Your task to perform on an android device: open the mobile data screen to see how much data has been used Image 0: 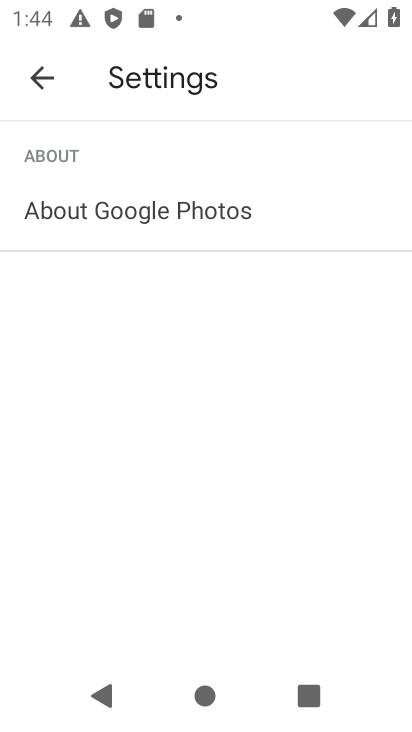
Step 0: press home button
Your task to perform on an android device: open the mobile data screen to see how much data has been used Image 1: 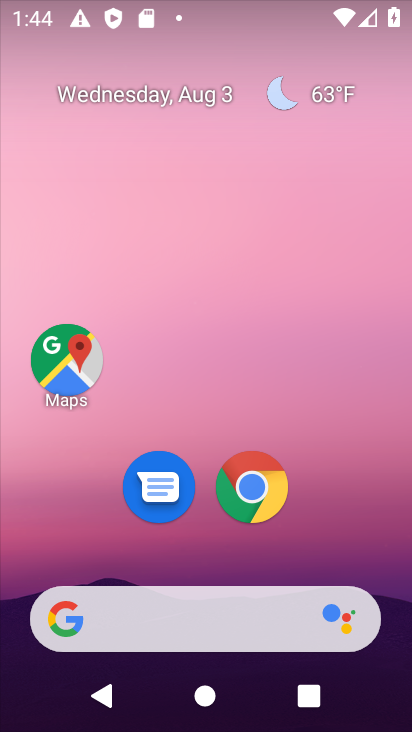
Step 1: drag from (293, 547) to (325, 31)
Your task to perform on an android device: open the mobile data screen to see how much data has been used Image 2: 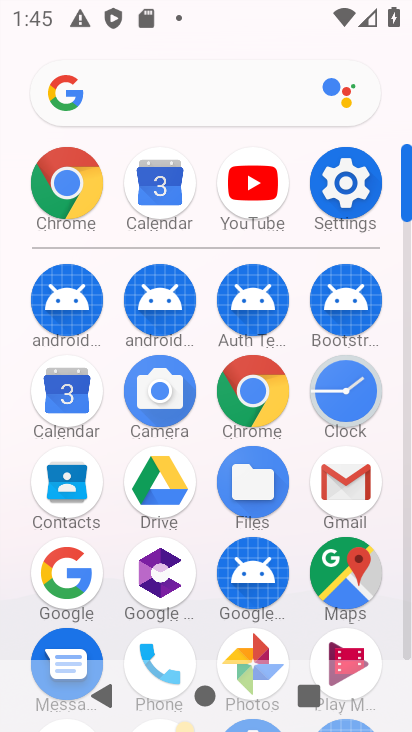
Step 2: drag from (270, 4) to (205, 612)
Your task to perform on an android device: open the mobile data screen to see how much data has been used Image 3: 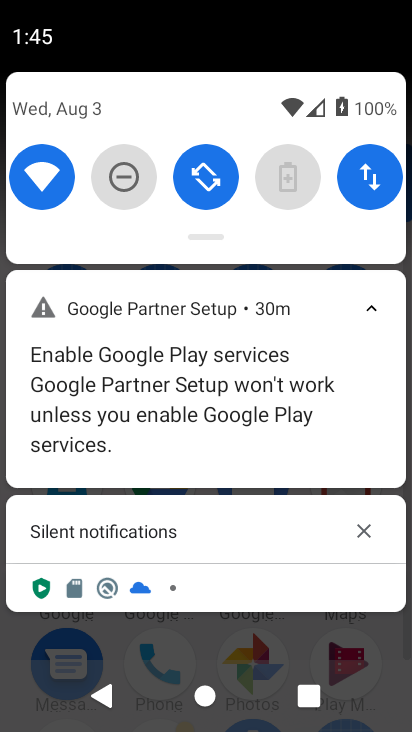
Step 3: drag from (232, 191) to (233, 587)
Your task to perform on an android device: open the mobile data screen to see how much data has been used Image 4: 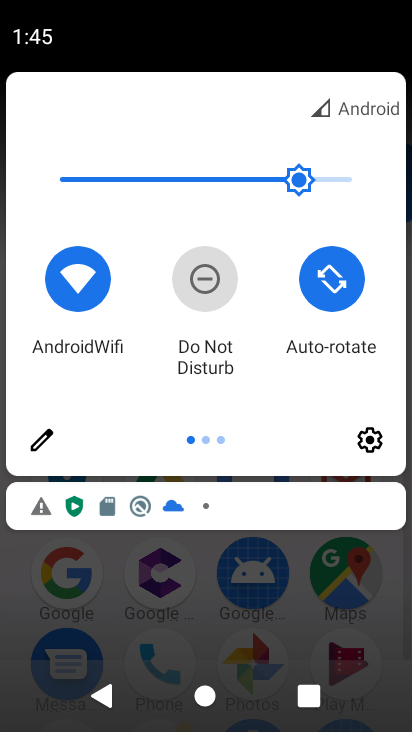
Step 4: drag from (379, 311) to (76, 279)
Your task to perform on an android device: open the mobile data screen to see how much data has been used Image 5: 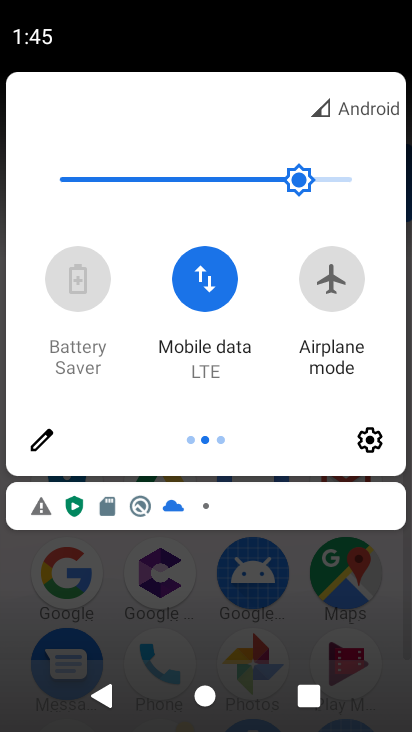
Step 5: click (206, 274)
Your task to perform on an android device: open the mobile data screen to see how much data has been used Image 6: 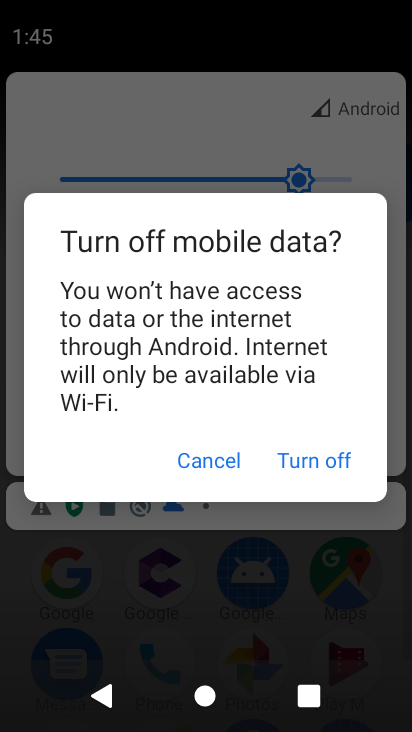
Step 6: click (203, 460)
Your task to perform on an android device: open the mobile data screen to see how much data has been used Image 7: 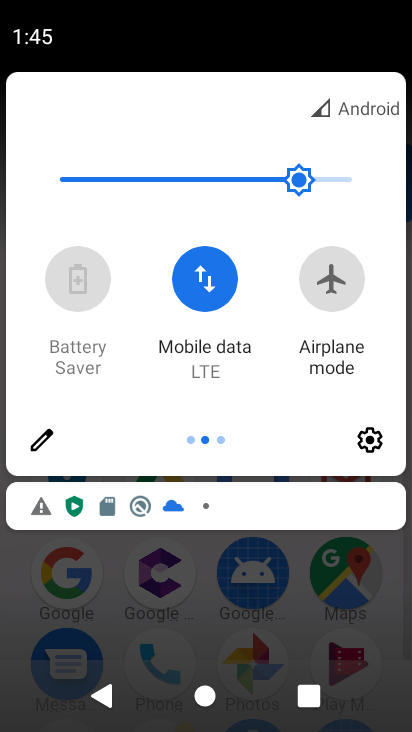
Step 7: click (204, 271)
Your task to perform on an android device: open the mobile data screen to see how much data has been used Image 8: 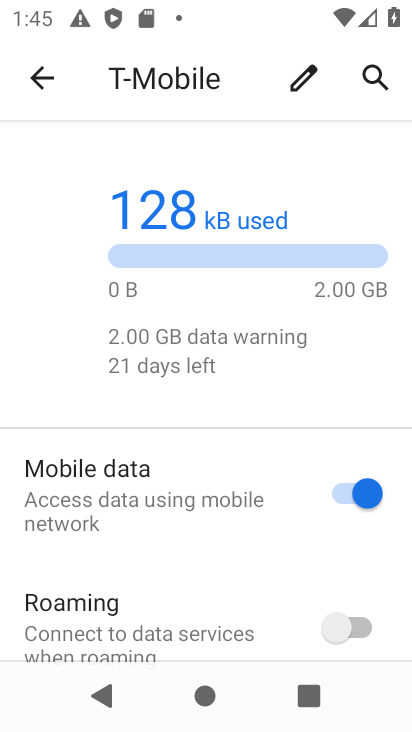
Step 8: task complete